Your task to perform on an android device: Open Youtube and go to "Your channel" Image 0: 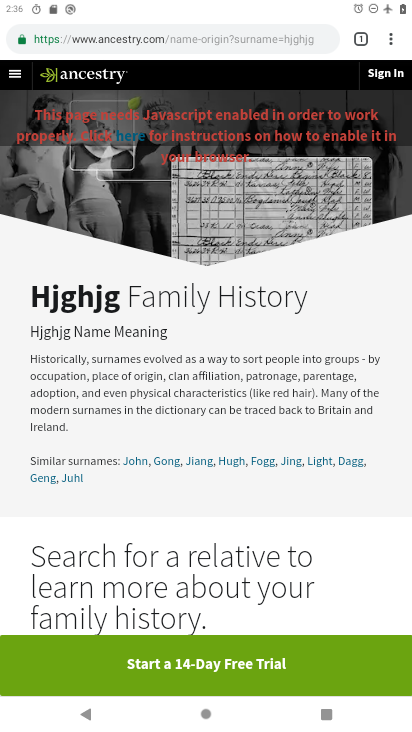
Step 0: press home button
Your task to perform on an android device: Open Youtube and go to "Your channel" Image 1: 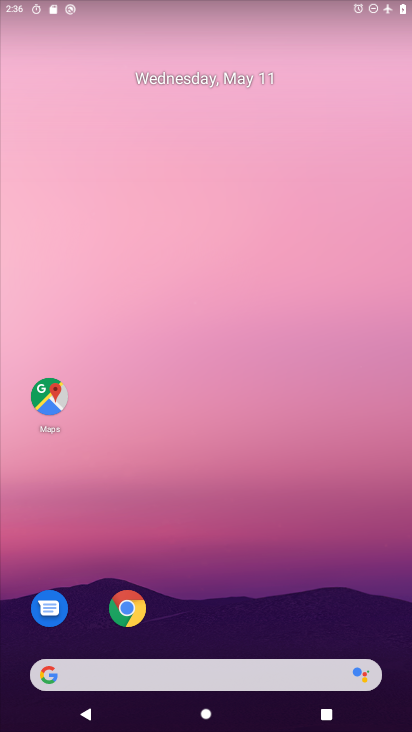
Step 1: drag from (215, 624) to (306, 49)
Your task to perform on an android device: Open Youtube and go to "Your channel" Image 2: 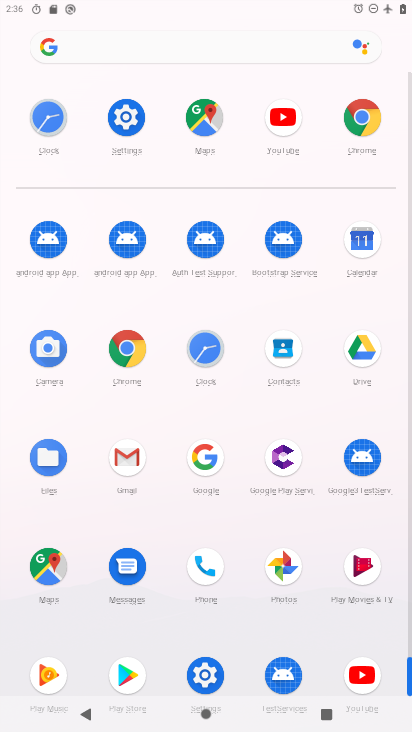
Step 2: click (364, 673)
Your task to perform on an android device: Open Youtube and go to "Your channel" Image 3: 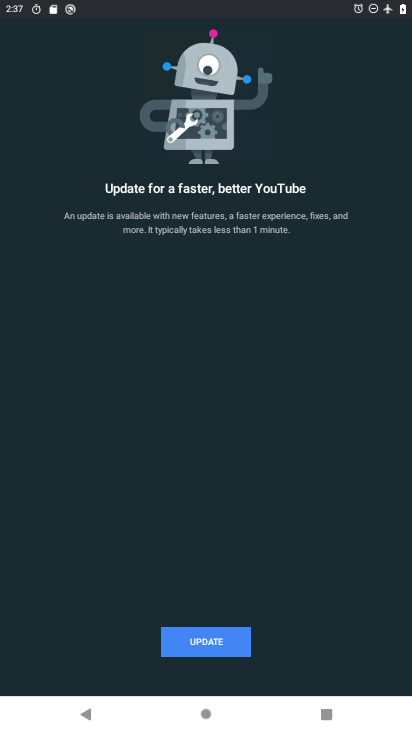
Step 3: task complete